Your task to perform on an android device: Open Google Maps Image 0: 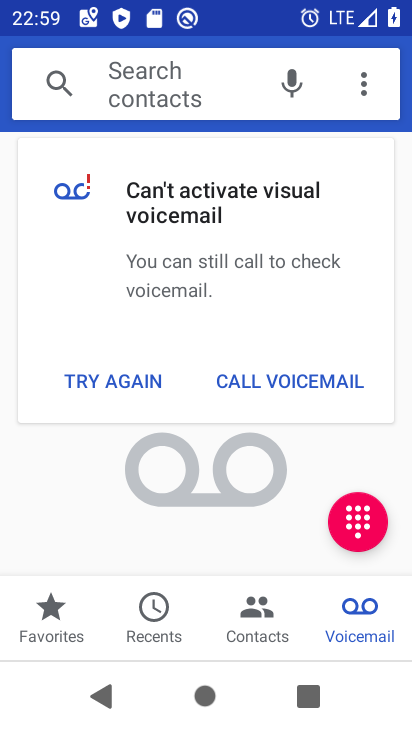
Step 0: press back button
Your task to perform on an android device: Open Google Maps Image 1: 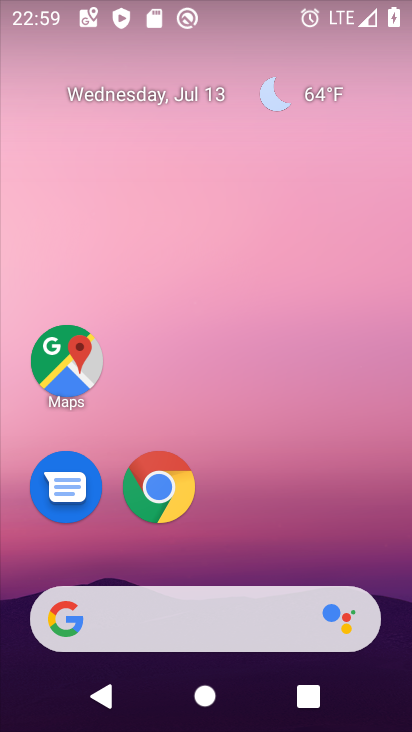
Step 1: click (51, 357)
Your task to perform on an android device: Open Google Maps Image 2: 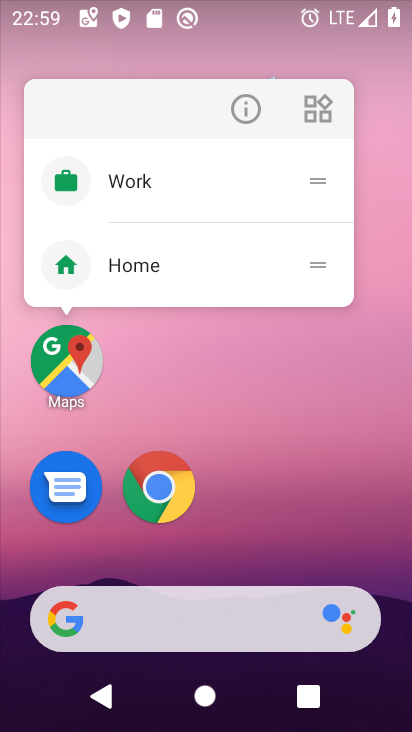
Step 2: click (67, 369)
Your task to perform on an android device: Open Google Maps Image 3: 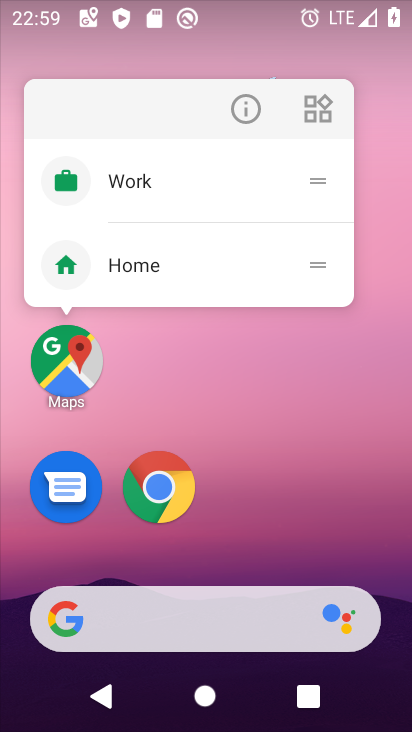
Step 3: click (57, 372)
Your task to perform on an android device: Open Google Maps Image 4: 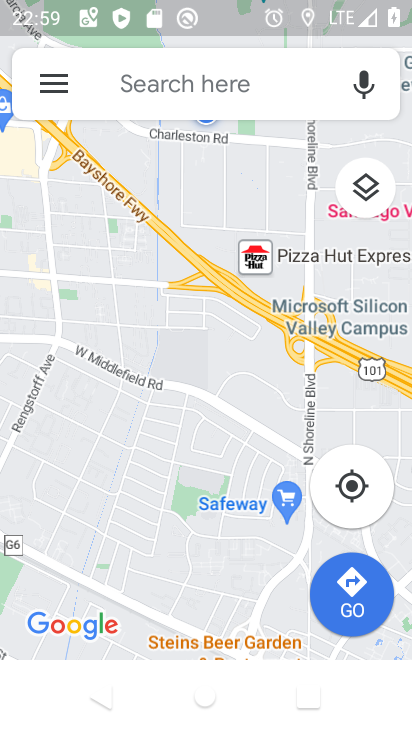
Step 4: task complete